Your task to perform on an android device: Go to settings Image 0: 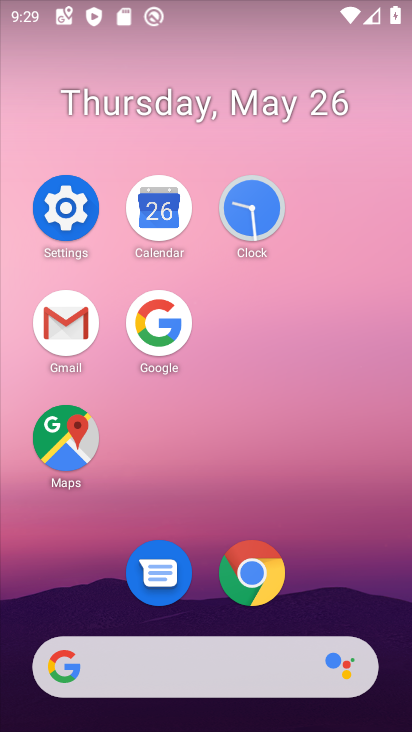
Step 0: click (75, 195)
Your task to perform on an android device: Go to settings Image 1: 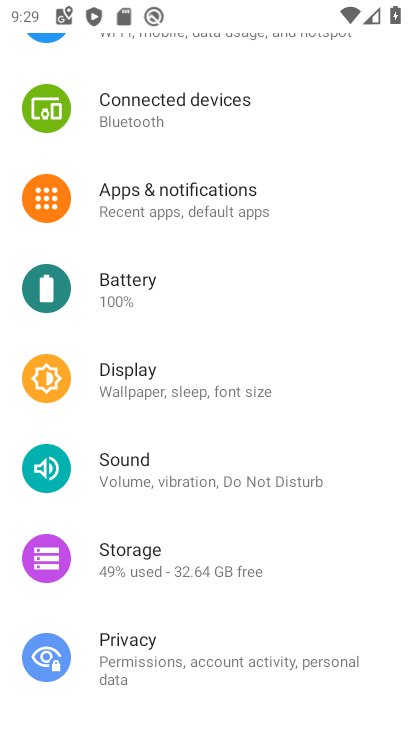
Step 1: task complete